Your task to perform on an android device: open app "Microsoft Authenticator" (install if not already installed) Image 0: 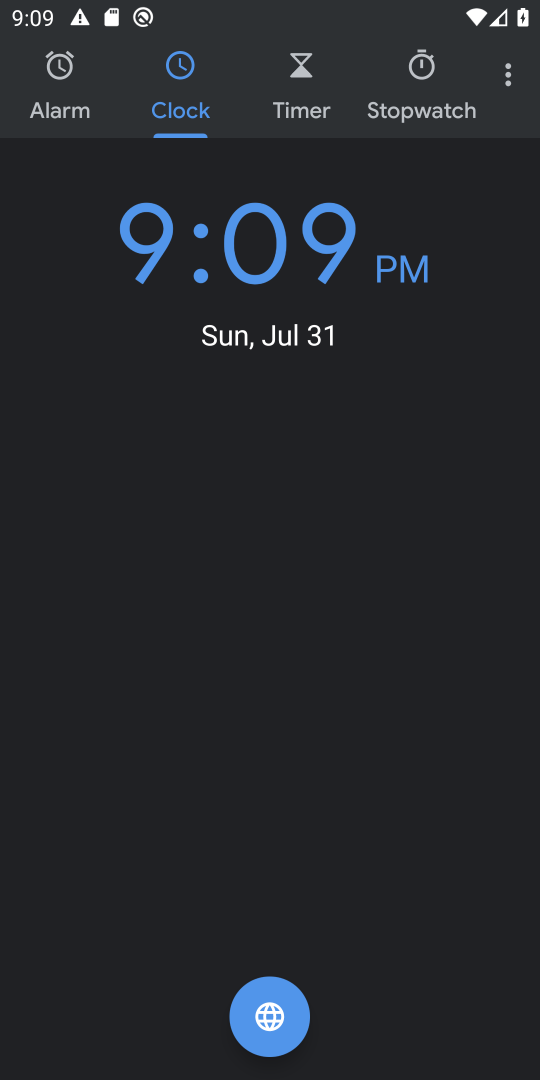
Step 0: press home button
Your task to perform on an android device: open app "Microsoft Authenticator" (install if not already installed) Image 1: 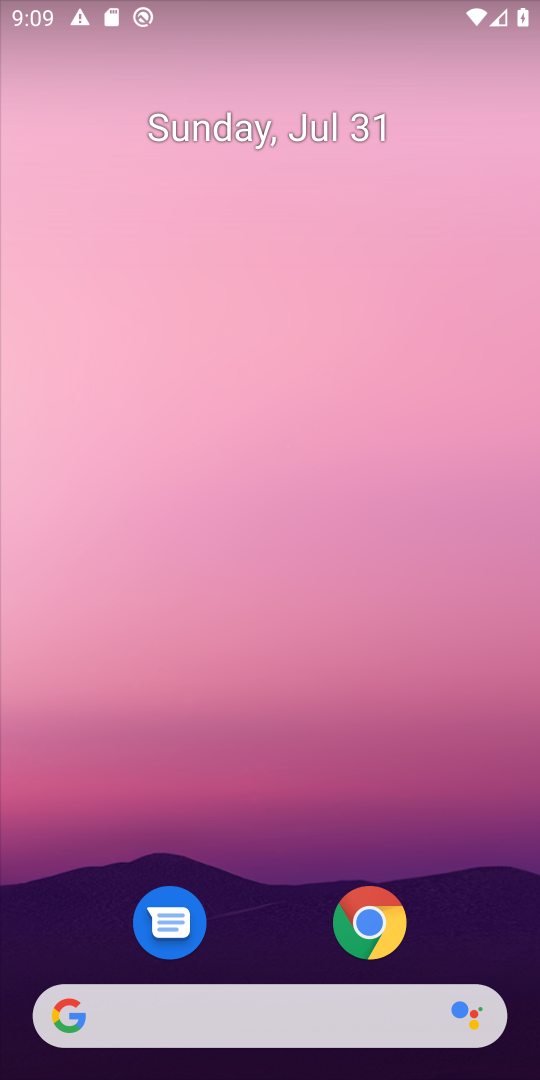
Step 1: drag from (296, 975) to (296, 141)
Your task to perform on an android device: open app "Microsoft Authenticator" (install if not already installed) Image 2: 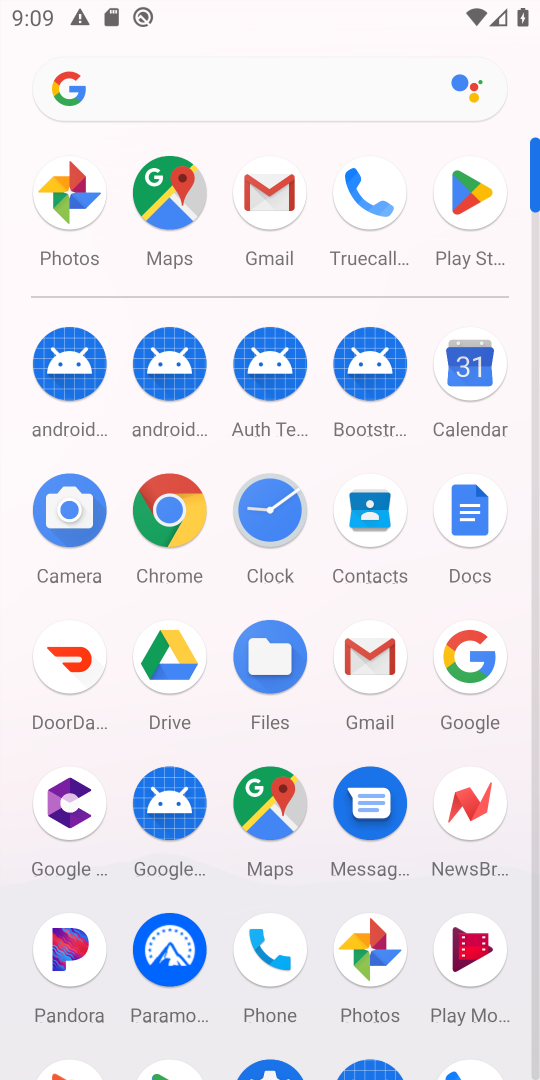
Step 2: click (472, 189)
Your task to perform on an android device: open app "Microsoft Authenticator" (install if not already installed) Image 3: 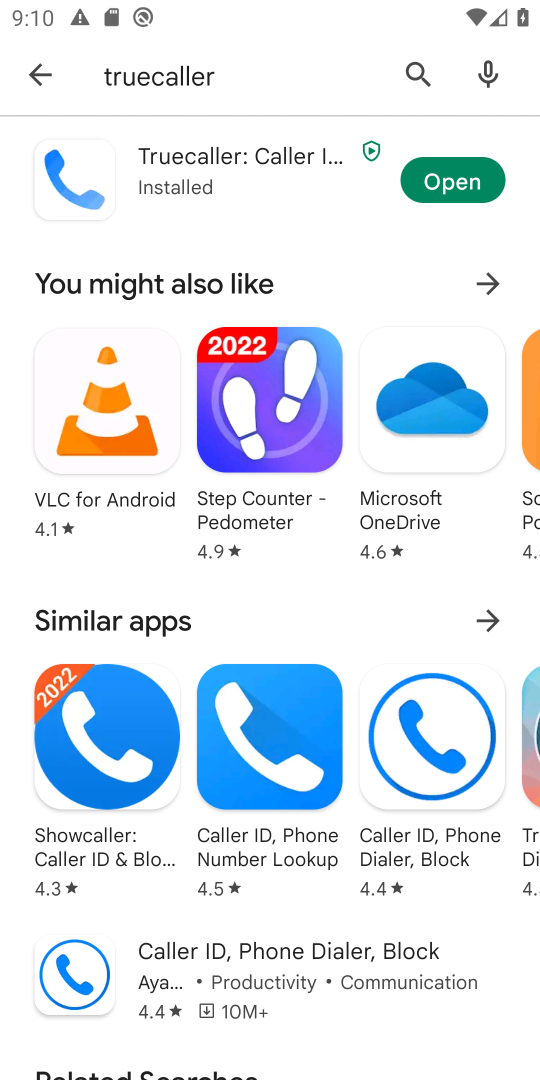
Step 3: click (423, 71)
Your task to perform on an android device: open app "Microsoft Authenticator" (install if not already installed) Image 4: 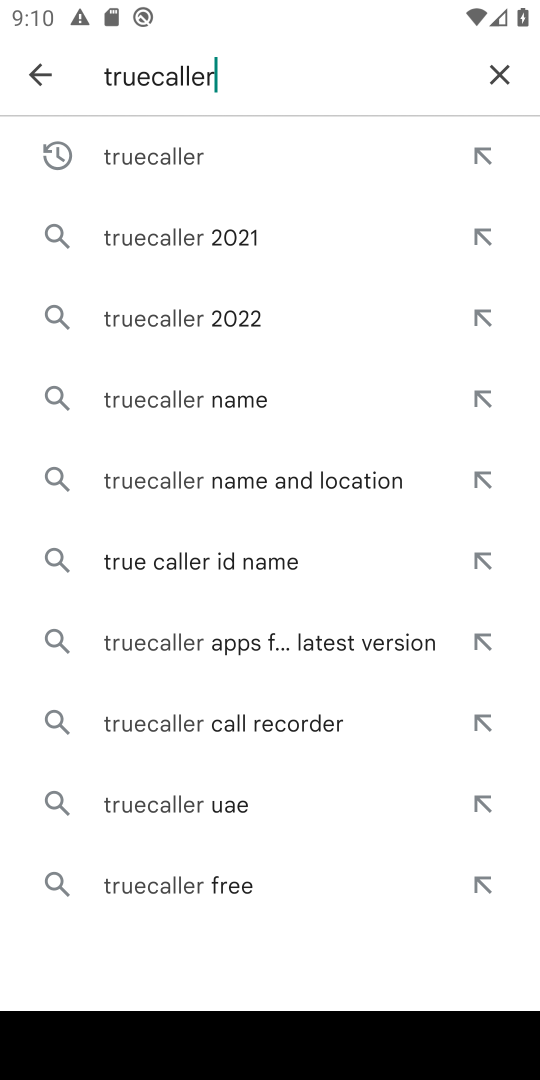
Step 4: click (495, 70)
Your task to perform on an android device: open app "Microsoft Authenticator" (install if not already installed) Image 5: 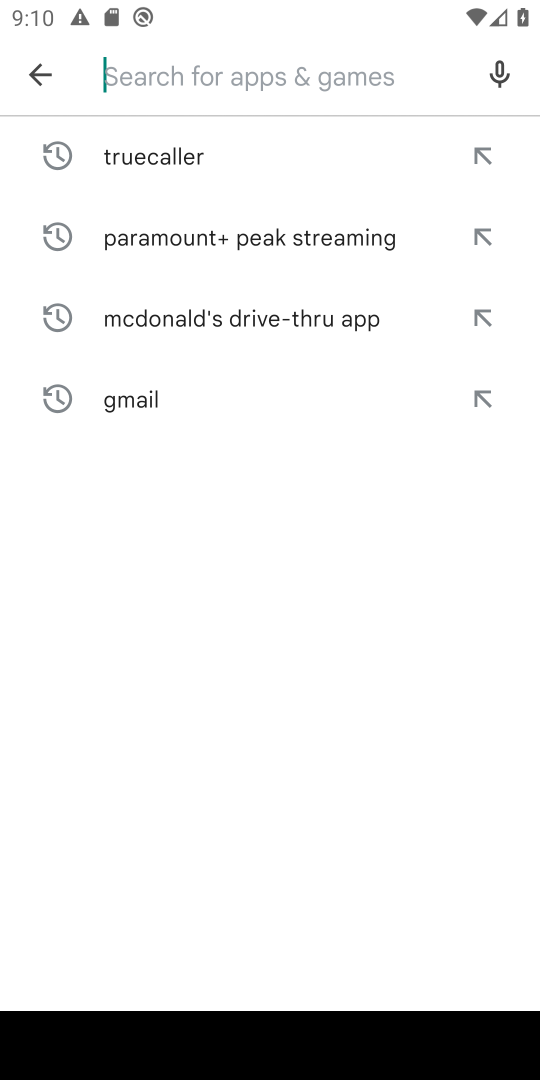
Step 5: type "Microsoft Authenticator"
Your task to perform on an android device: open app "Microsoft Authenticator" (install if not already installed) Image 6: 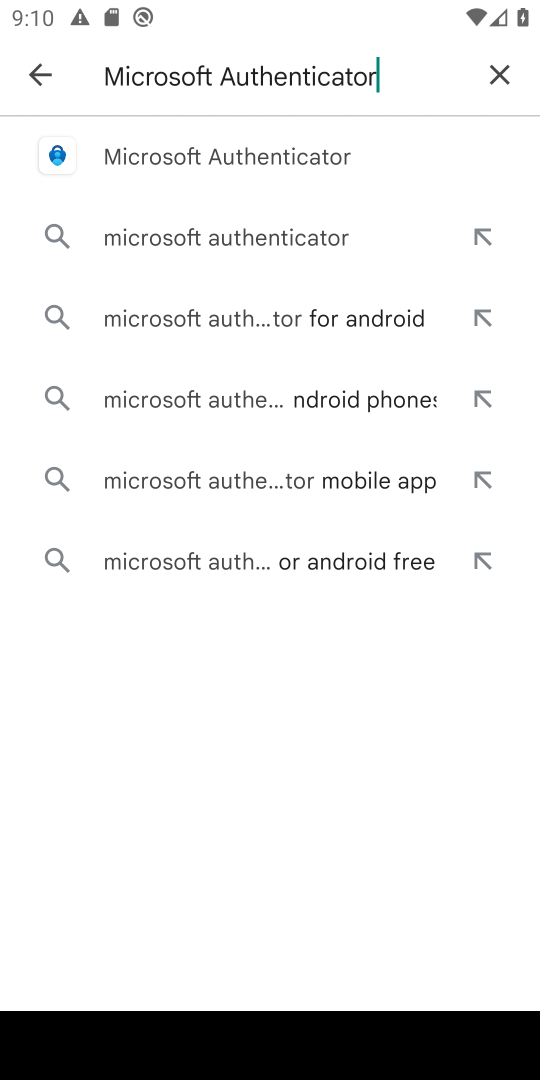
Step 6: click (278, 151)
Your task to perform on an android device: open app "Microsoft Authenticator" (install if not already installed) Image 7: 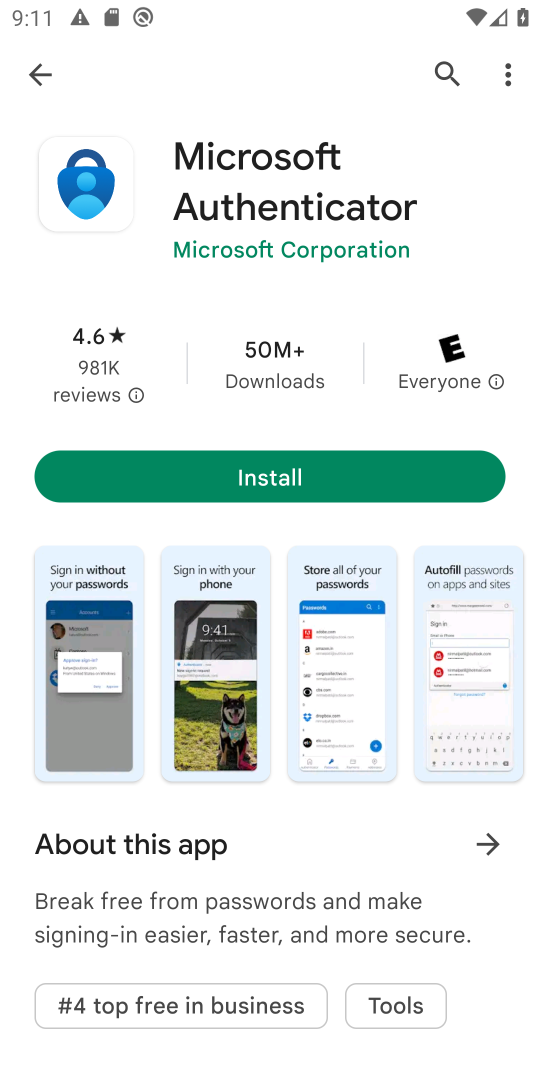
Step 7: click (268, 473)
Your task to perform on an android device: open app "Microsoft Authenticator" (install if not already installed) Image 8: 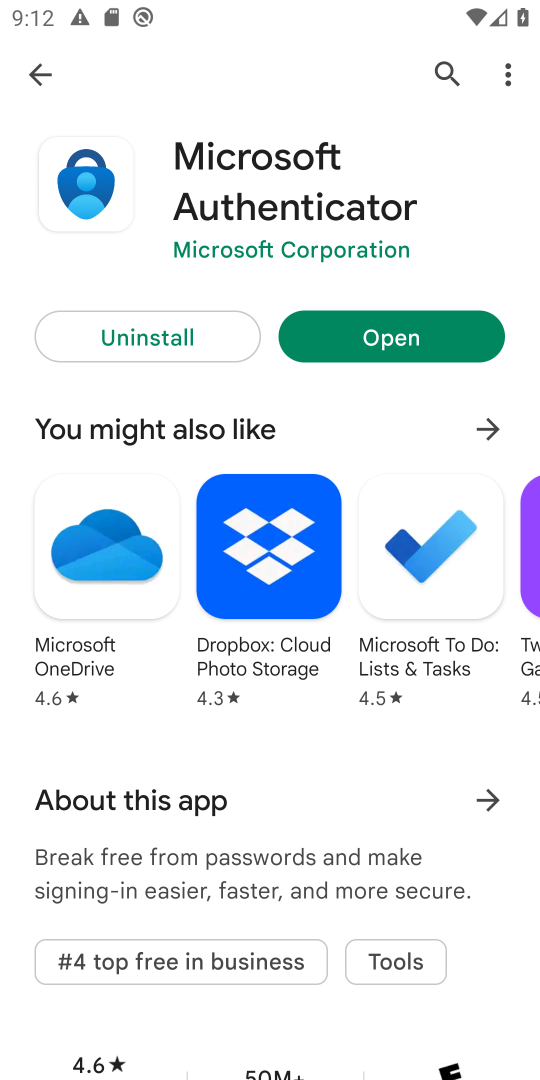
Step 8: task complete